Your task to perform on an android device: see creations saved in the google photos Image 0: 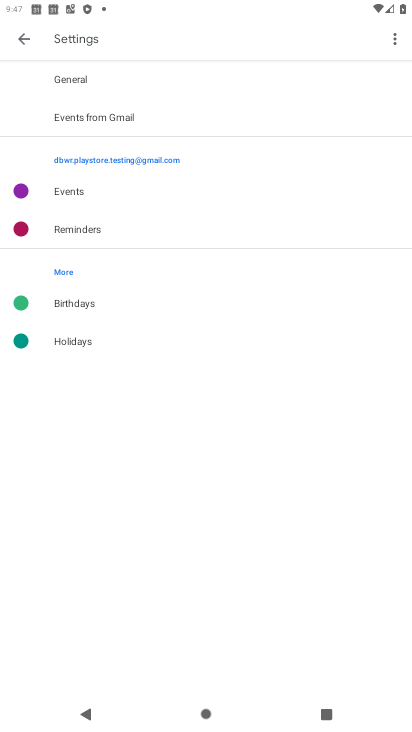
Step 0: press home button
Your task to perform on an android device: see creations saved in the google photos Image 1: 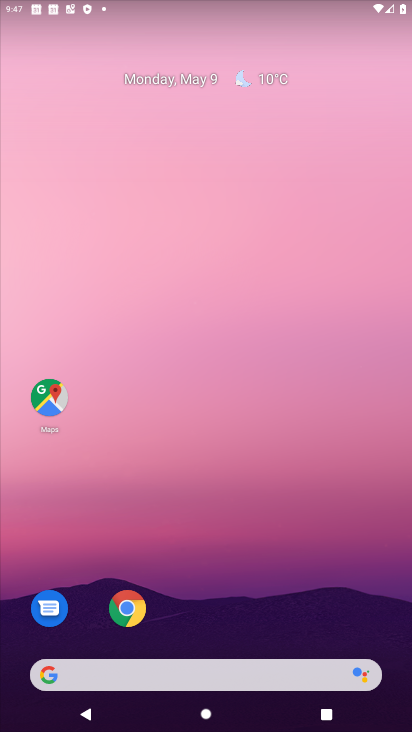
Step 1: drag from (296, 489) to (217, 26)
Your task to perform on an android device: see creations saved in the google photos Image 2: 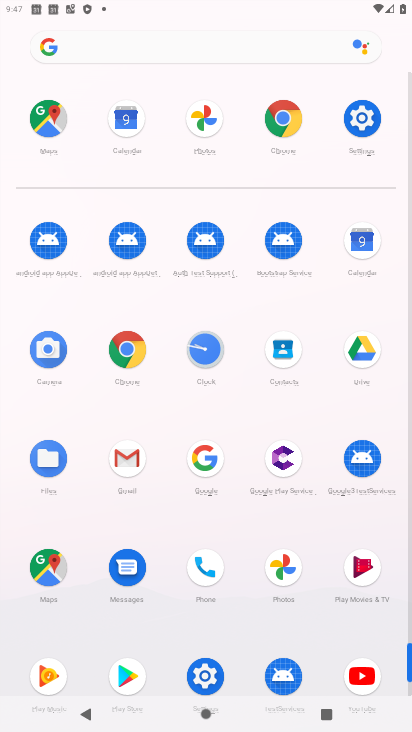
Step 2: click (288, 578)
Your task to perform on an android device: see creations saved in the google photos Image 3: 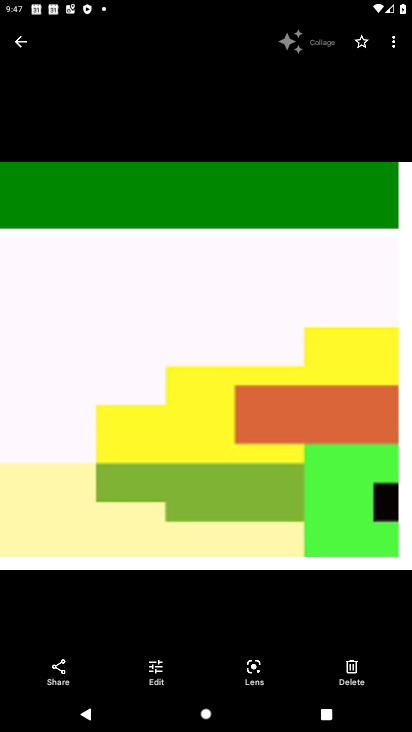
Step 3: click (18, 49)
Your task to perform on an android device: see creations saved in the google photos Image 4: 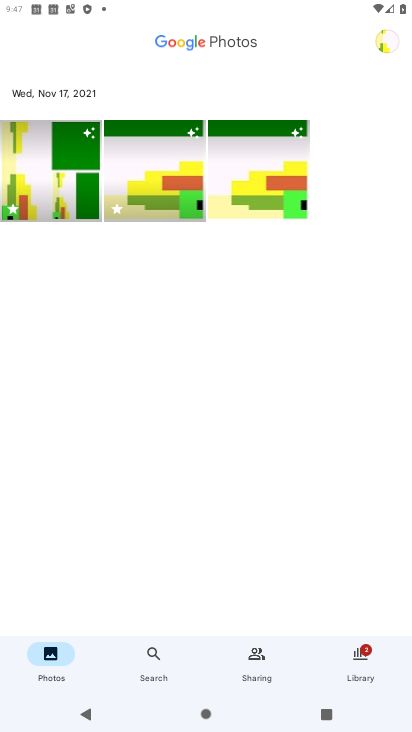
Step 4: task complete